Your task to perform on an android device: Go to accessibility settings Image 0: 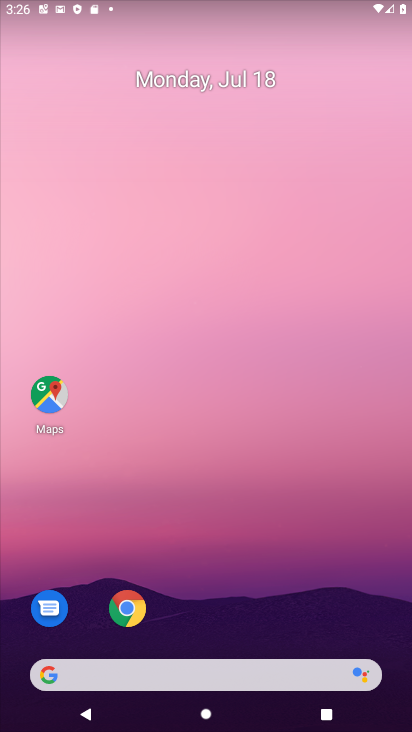
Step 0: drag from (235, 685) to (230, 229)
Your task to perform on an android device: Go to accessibility settings Image 1: 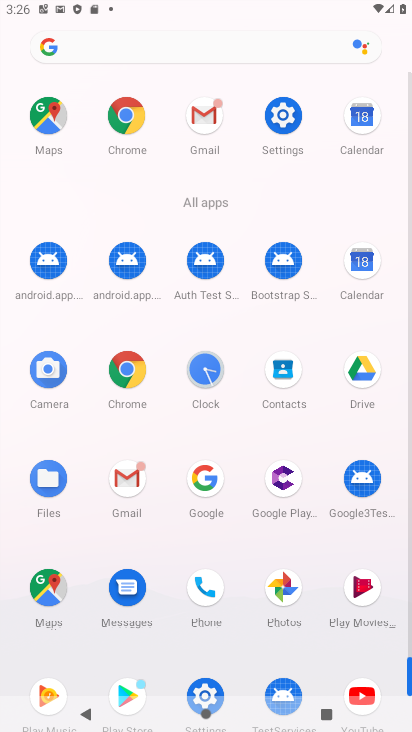
Step 1: click (279, 126)
Your task to perform on an android device: Go to accessibility settings Image 2: 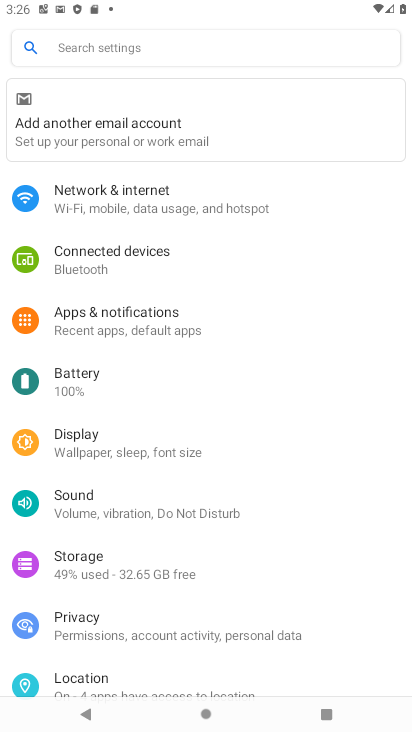
Step 2: drag from (193, 566) to (192, 340)
Your task to perform on an android device: Go to accessibility settings Image 3: 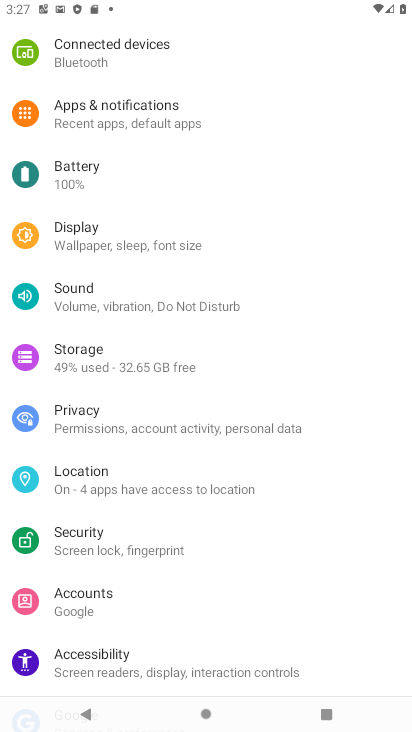
Step 3: drag from (198, 429) to (217, 245)
Your task to perform on an android device: Go to accessibility settings Image 4: 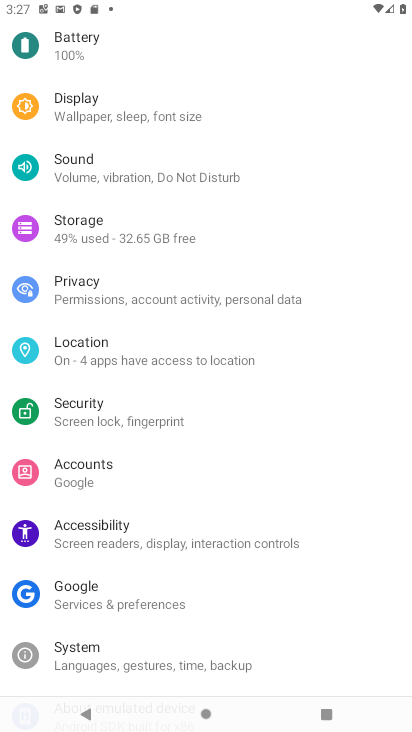
Step 4: click (213, 541)
Your task to perform on an android device: Go to accessibility settings Image 5: 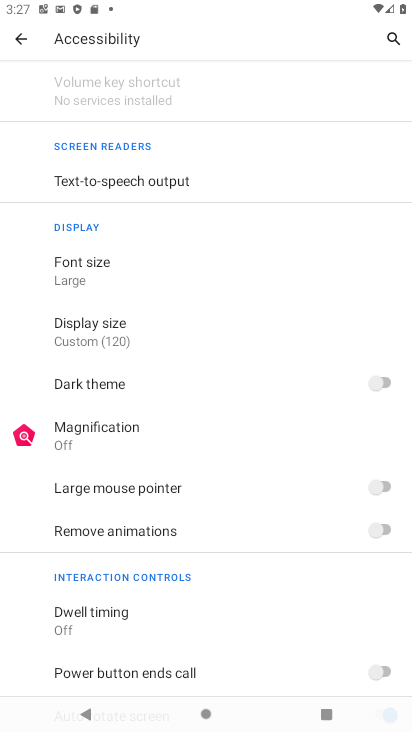
Step 5: task complete